Your task to perform on an android device: What's the weather today? Image 0: 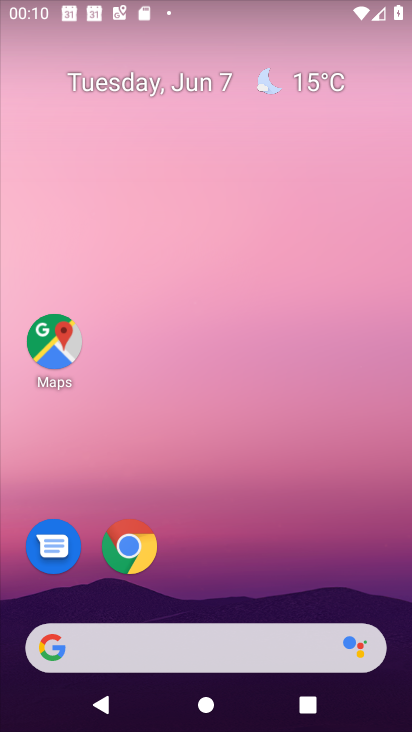
Step 0: click (271, 91)
Your task to perform on an android device: What's the weather today? Image 1: 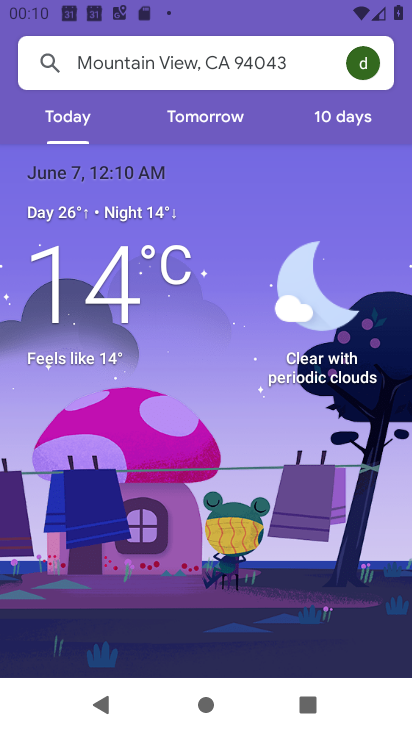
Step 1: task complete